Your task to perform on an android device: toggle translation in the chrome app Image 0: 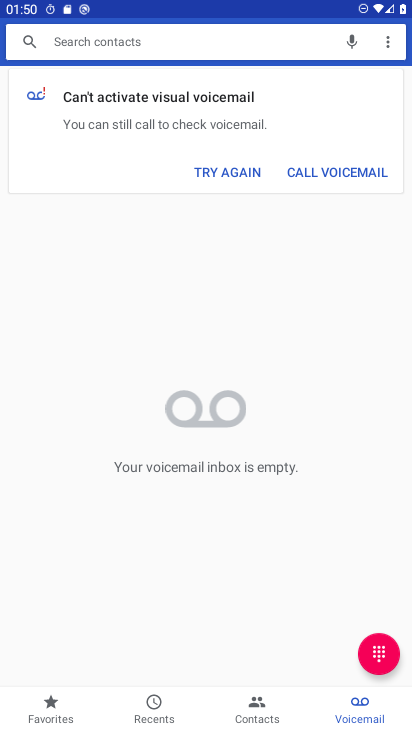
Step 0: press home button
Your task to perform on an android device: toggle translation in the chrome app Image 1: 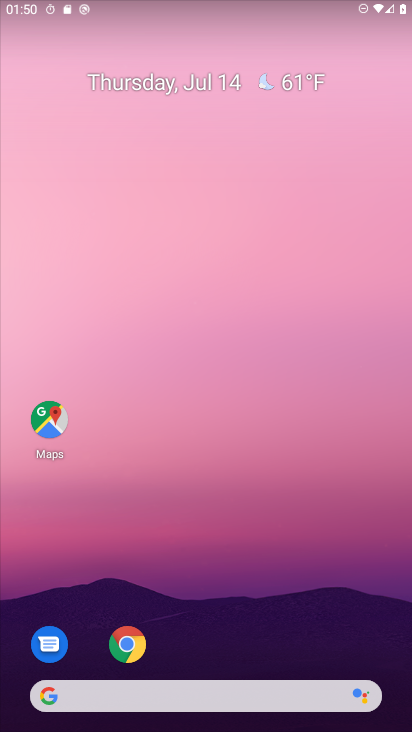
Step 1: drag from (305, 622) to (218, 90)
Your task to perform on an android device: toggle translation in the chrome app Image 2: 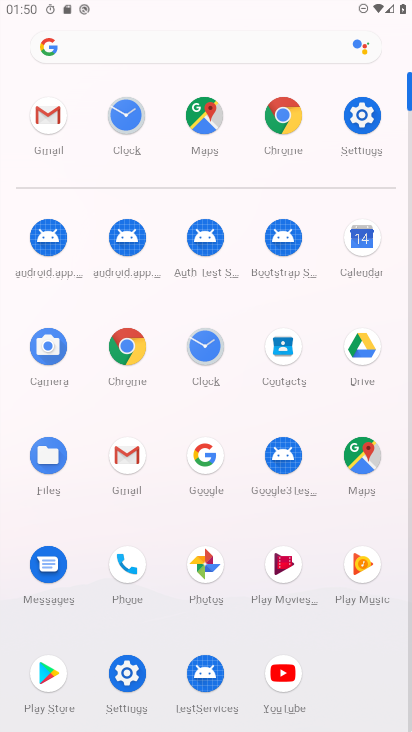
Step 2: click (128, 346)
Your task to perform on an android device: toggle translation in the chrome app Image 3: 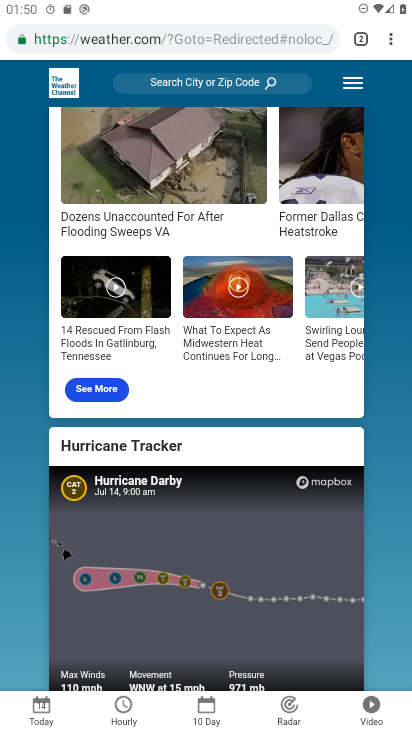
Step 3: drag from (390, 35) to (271, 471)
Your task to perform on an android device: toggle translation in the chrome app Image 4: 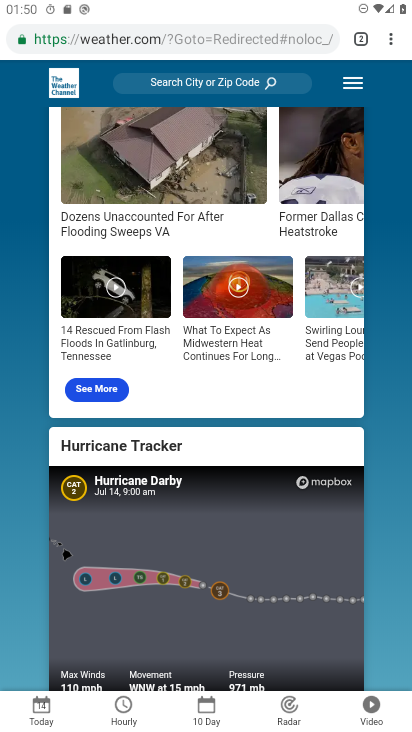
Step 4: click (273, 466)
Your task to perform on an android device: toggle translation in the chrome app Image 5: 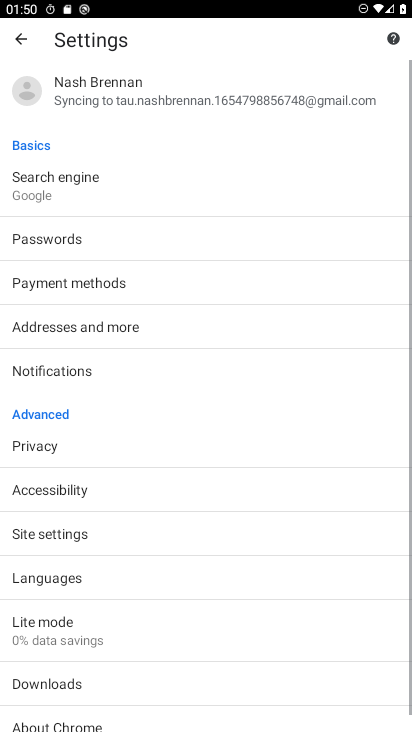
Step 5: drag from (273, 466) to (238, 162)
Your task to perform on an android device: toggle translation in the chrome app Image 6: 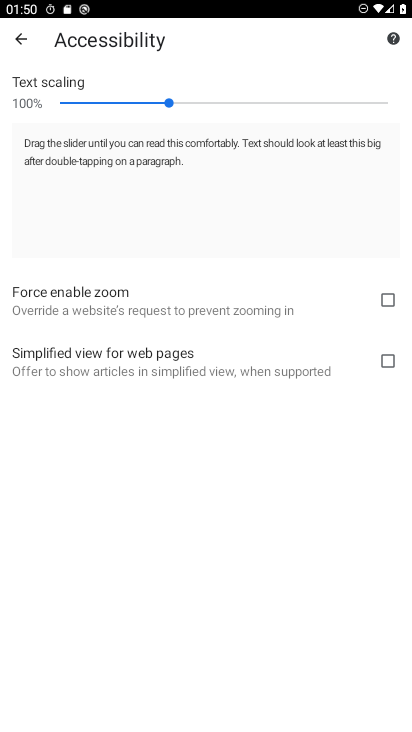
Step 6: click (27, 41)
Your task to perform on an android device: toggle translation in the chrome app Image 7: 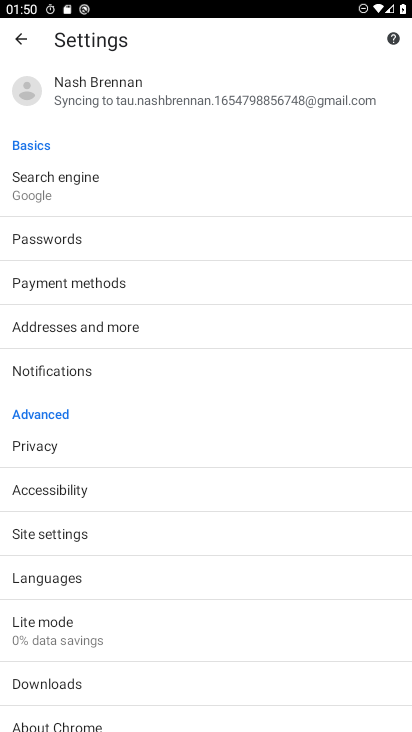
Step 7: click (88, 582)
Your task to perform on an android device: toggle translation in the chrome app Image 8: 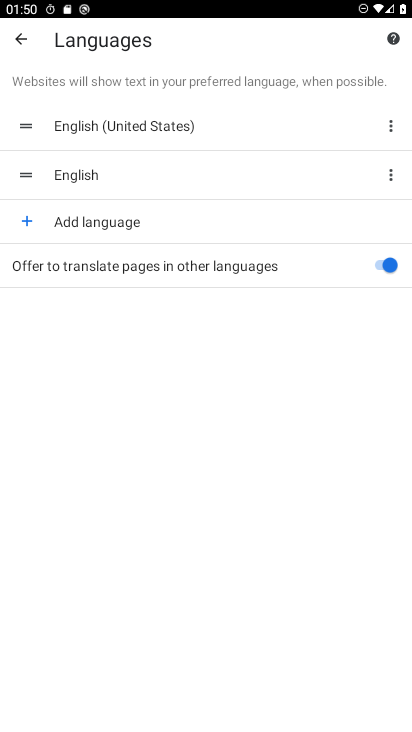
Step 8: click (378, 266)
Your task to perform on an android device: toggle translation in the chrome app Image 9: 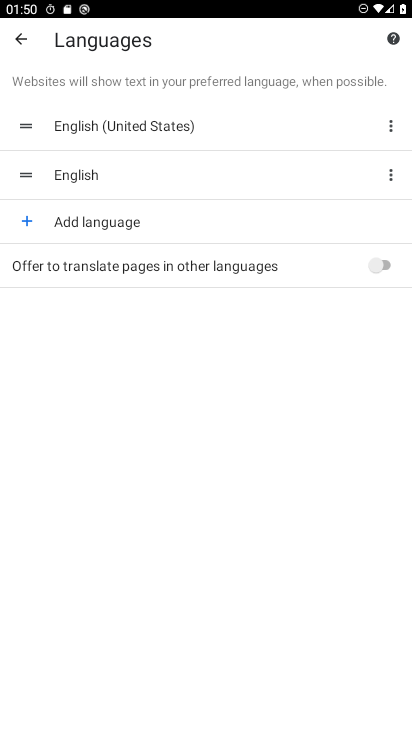
Step 9: task complete